Your task to perform on an android device: toggle sleep mode Image 0: 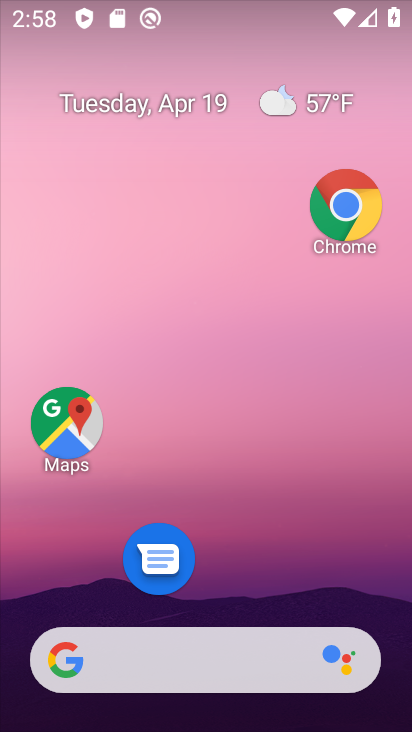
Step 0: drag from (182, 603) to (238, 186)
Your task to perform on an android device: toggle sleep mode Image 1: 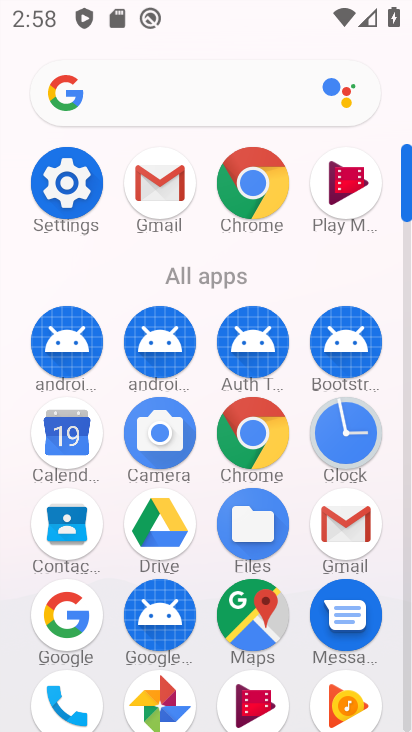
Step 1: drag from (180, 654) to (188, 439)
Your task to perform on an android device: toggle sleep mode Image 2: 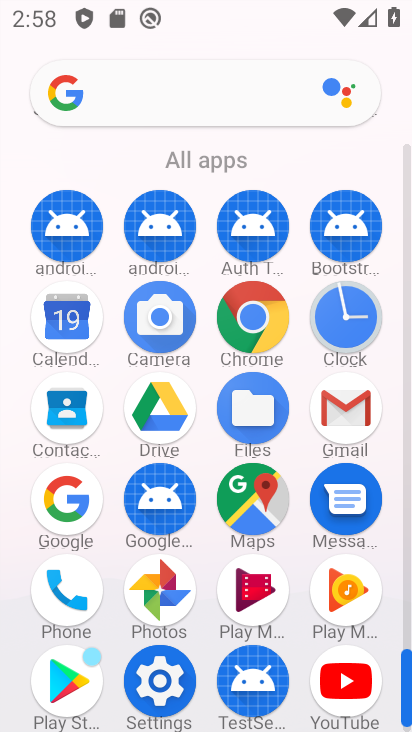
Step 2: drag from (230, 605) to (275, 238)
Your task to perform on an android device: toggle sleep mode Image 3: 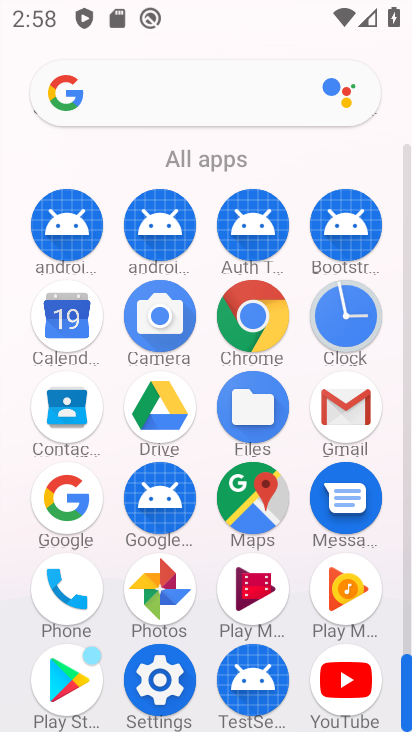
Step 3: click (149, 686)
Your task to perform on an android device: toggle sleep mode Image 4: 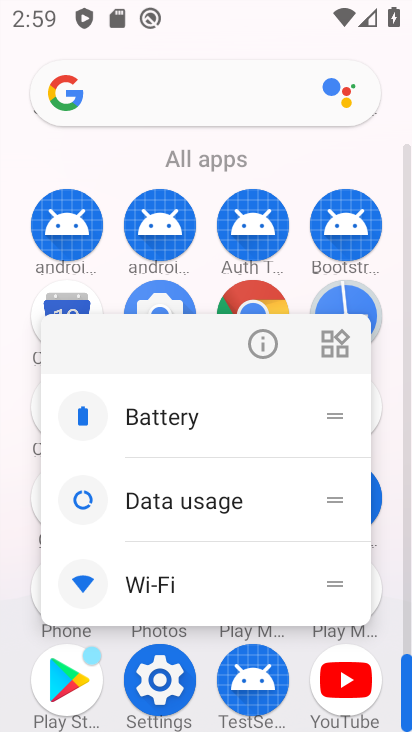
Step 4: click (157, 678)
Your task to perform on an android device: toggle sleep mode Image 5: 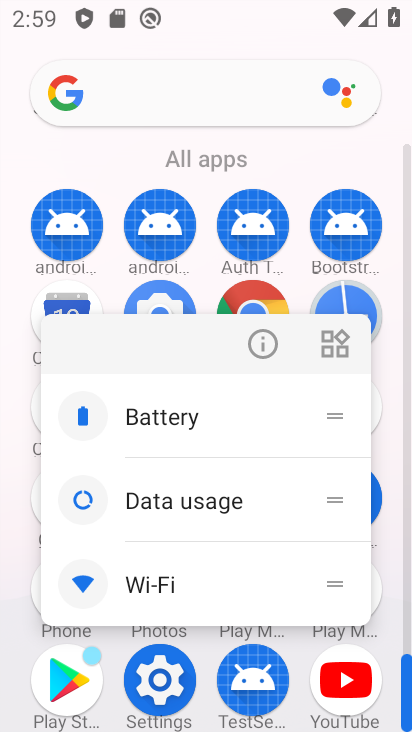
Step 5: click (262, 353)
Your task to perform on an android device: toggle sleep mode Image 6: 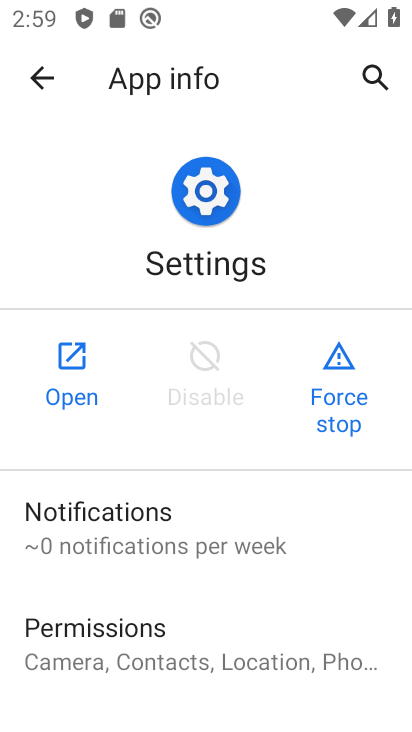
Step 6: click (87, 382)
Your task to perform on an android device: toggle sleep mode Image 7: 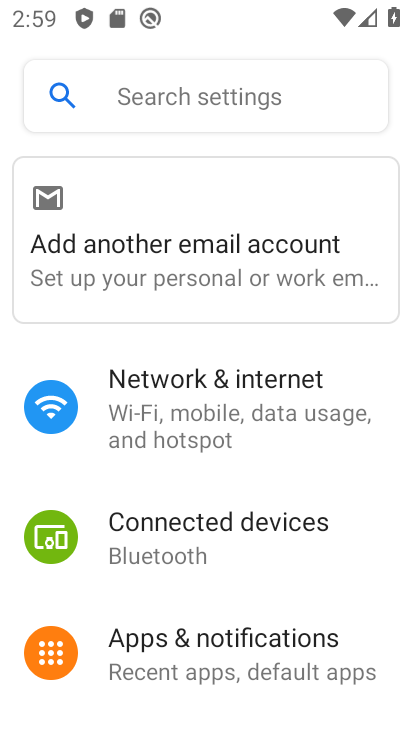
Step 7: drag from (194, 595) to (221, 246)
Your task to perform on an android device: toggle sleep mode Image 8: 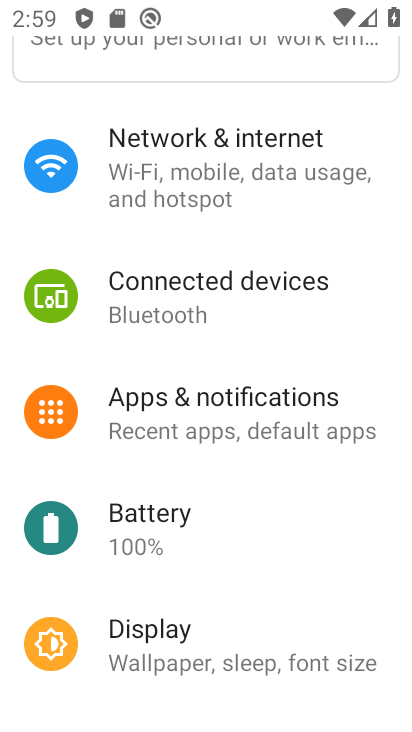
Step 8: click (207, 659)
Your task to perform on an android device: toggle sleep mode Image 9: 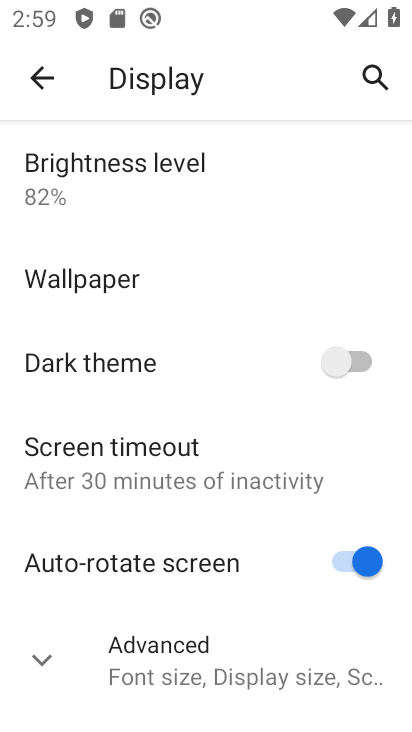
Step 9: task complete